Your task to perform on an android device: turn on airplane mode Image 0: 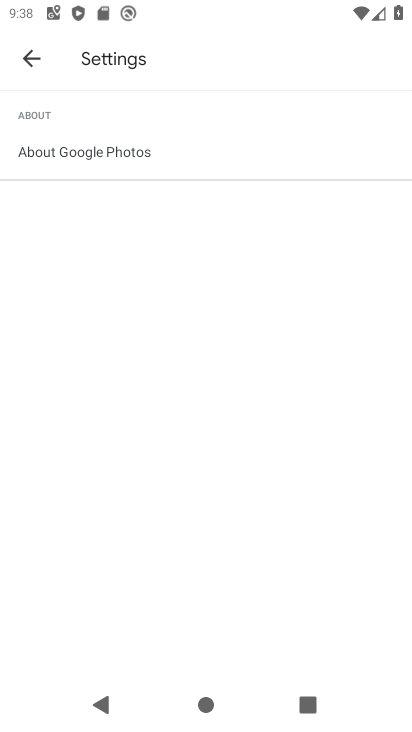
Step 0: press home button
Your task to perform on an android device: turn on airplane mode Image 1: 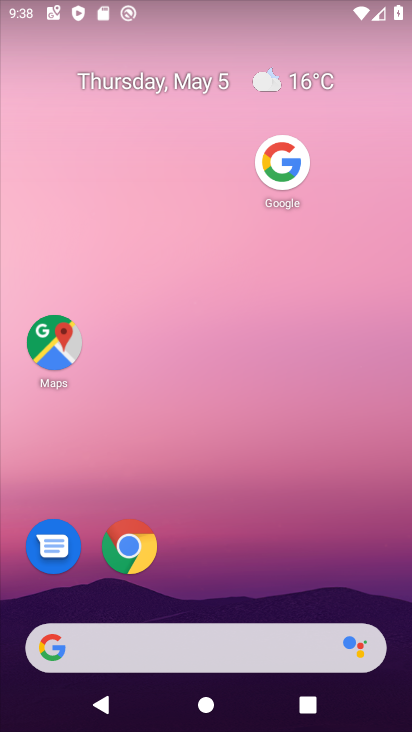
Step 1: drag from (184, 659) to (329, 7)
Your task to perform on an android device: turn on airplane mode Image 2: 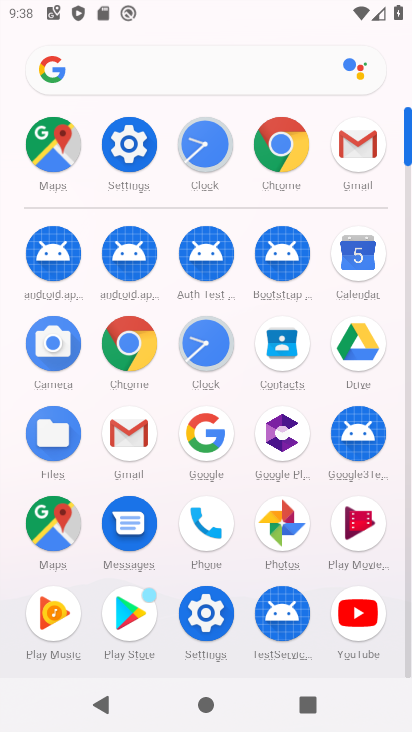
Step 2: click (128, 162)
Your task to perform on an android device: turn on airplane mode Image 3: 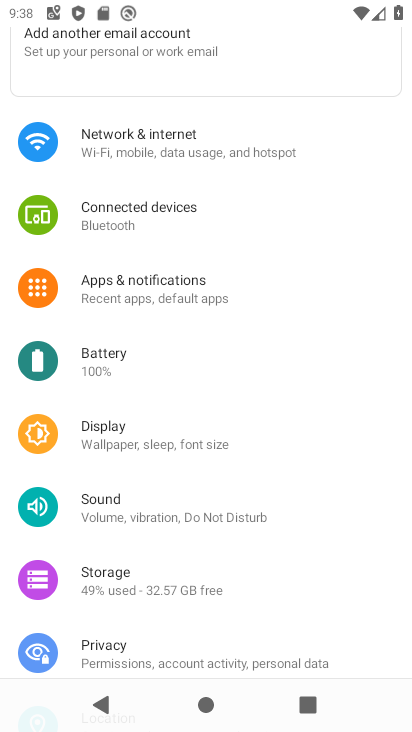
Step 3: click (166, 145)
Your task to perform on an android device: turn on airplane mode Image 4: 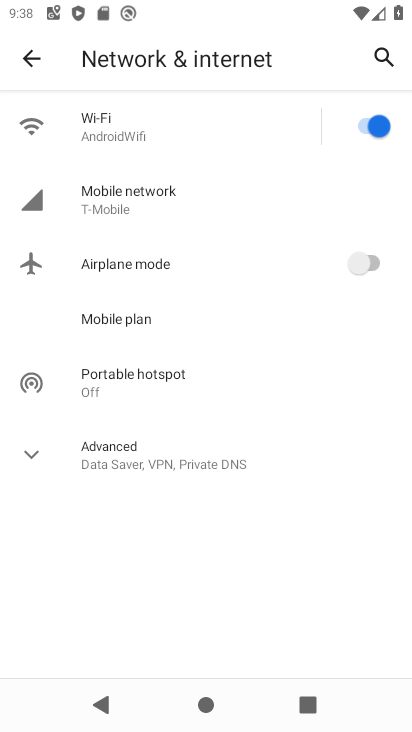
Step 4: click (368, 259)
Your task to perform on an android device: turn on airplane mode Image 5: 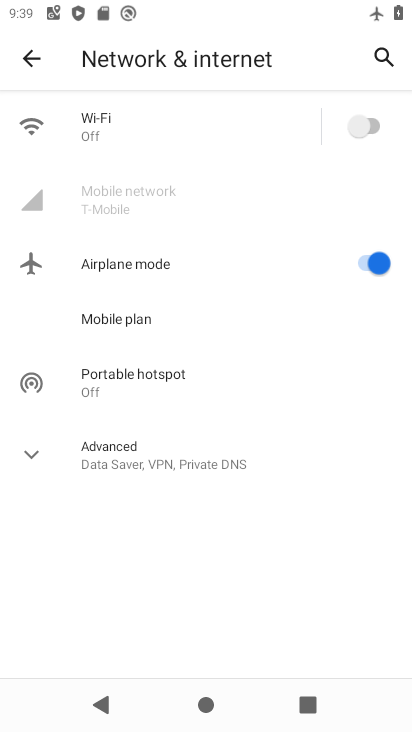
Step 5: task complete